Your task to perform on an android device: set the stopwatch Image 0: 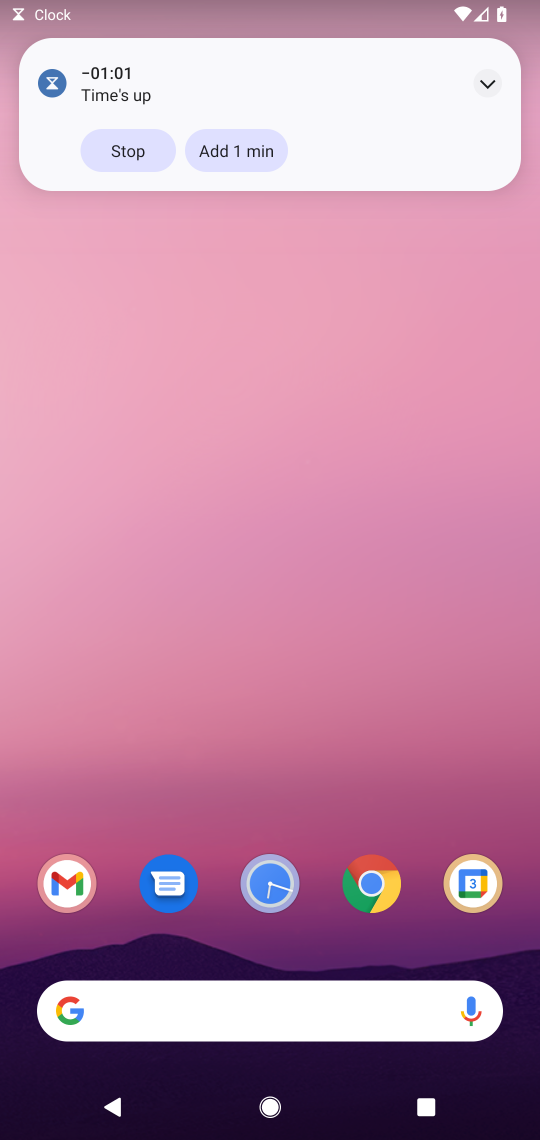
Step 0: drag from (292, 988) to (208, 255)
Your task to perform on an android device: set the stopwatch Image 1: 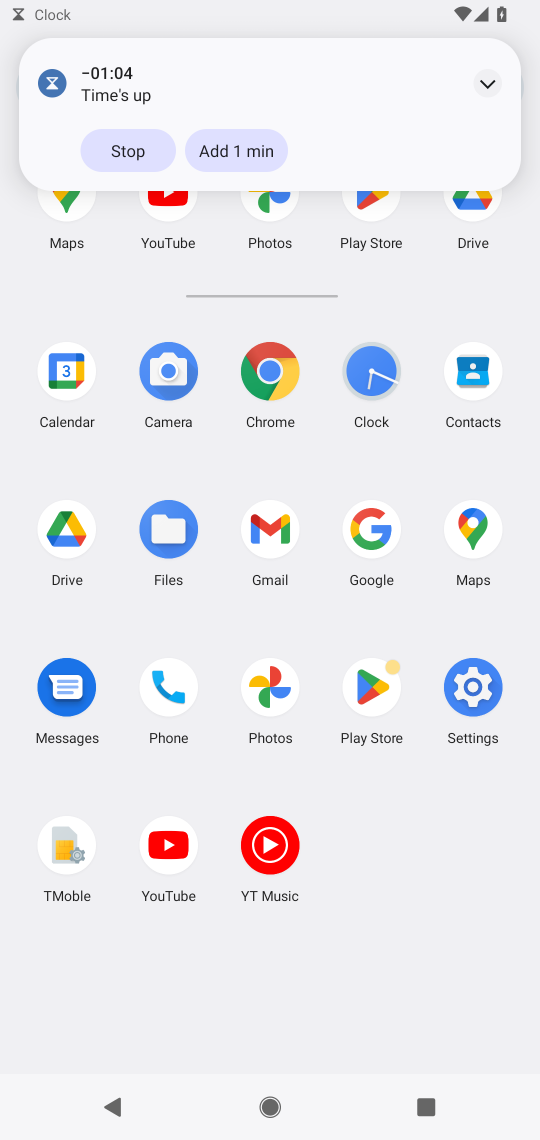
Step 1: click (386, 371)
Your task to perform on an android device: set the stopwatch Image 2: 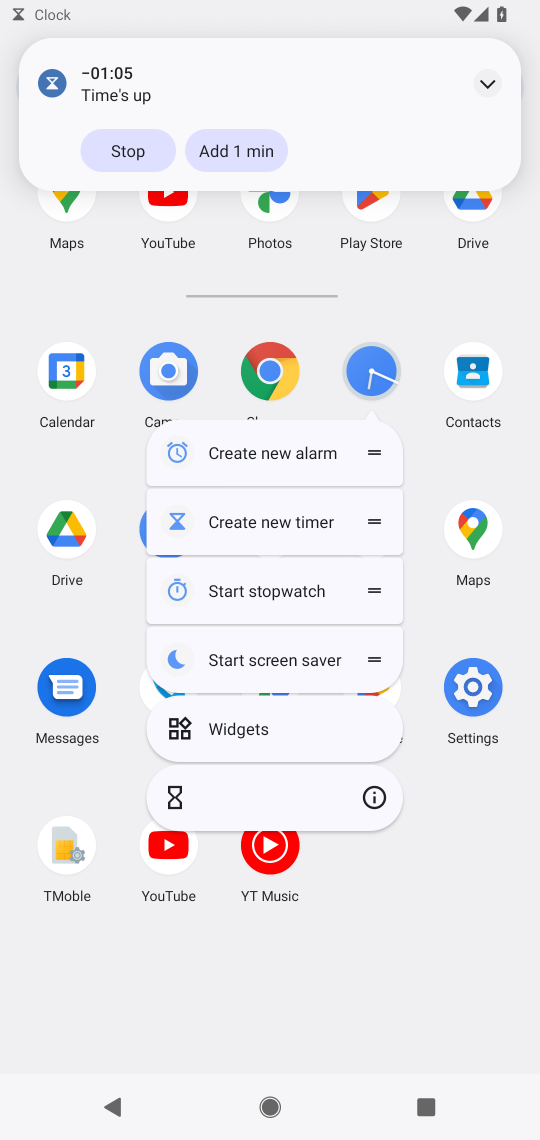
Step 2: click (382, 368)
Your task to perform on an android device: set the stopwatch Image 3: 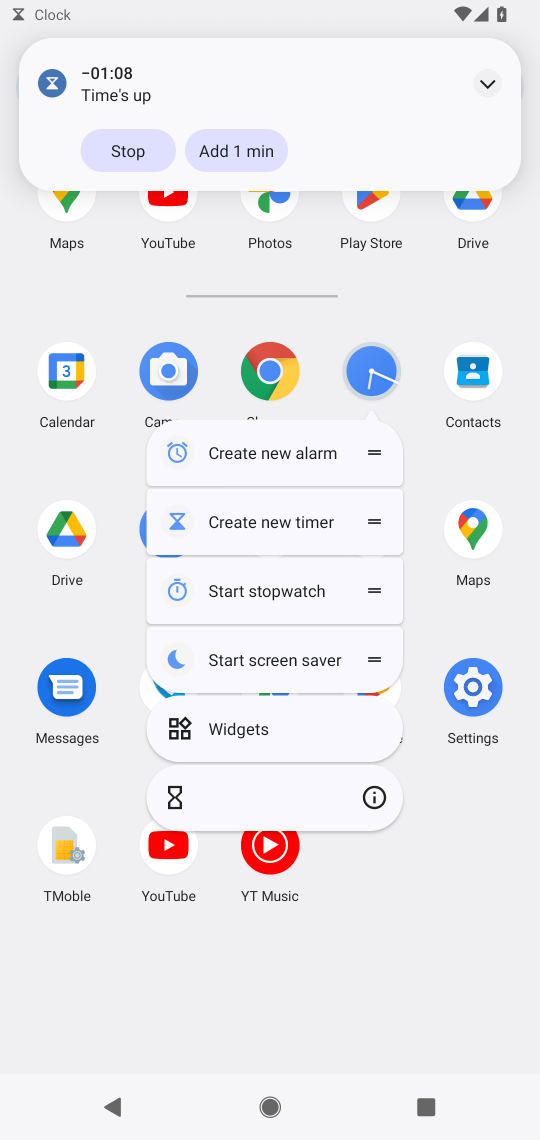
Step 3: click (372, 387)
Your task to perform on an android device: set the stopwatch Image 4: 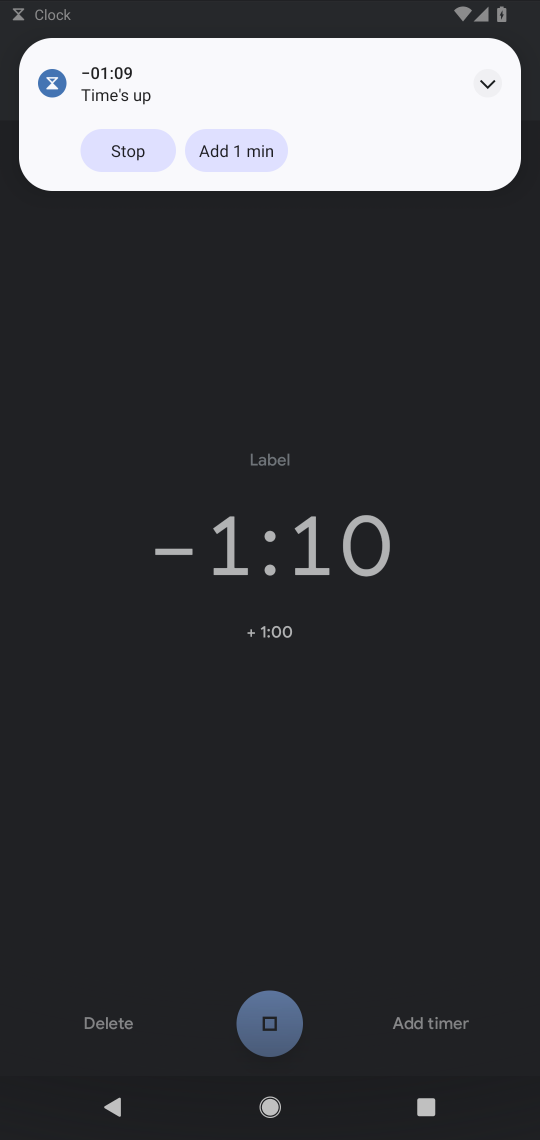
Step 4: click (365, 376)
Your task to perform on an android device: set the stopwatch Image 5: 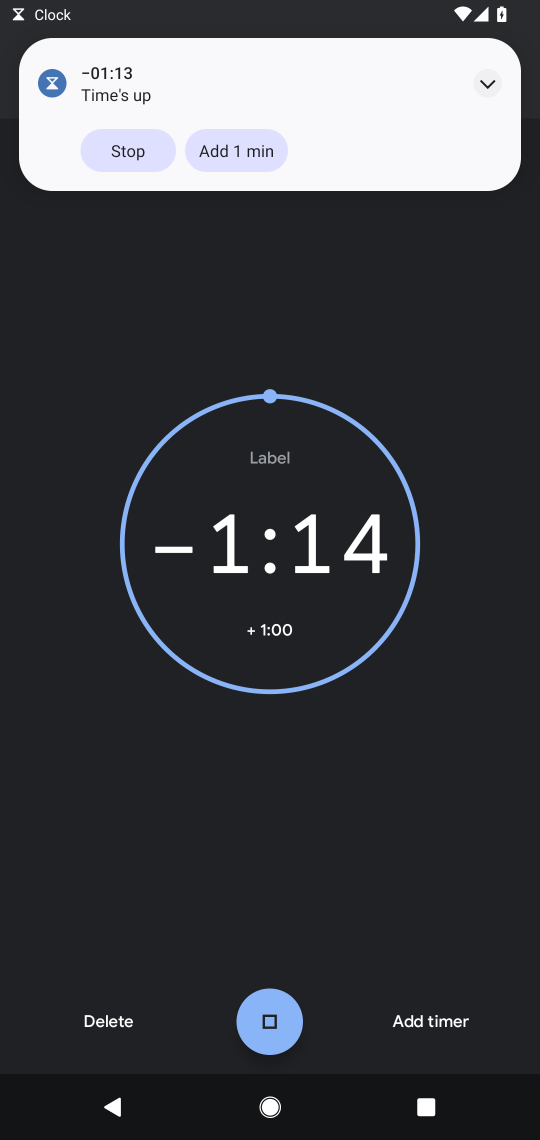
Step 5: click (126, 159)
Your task to perform on an android device: set the stopwatch Image 6: 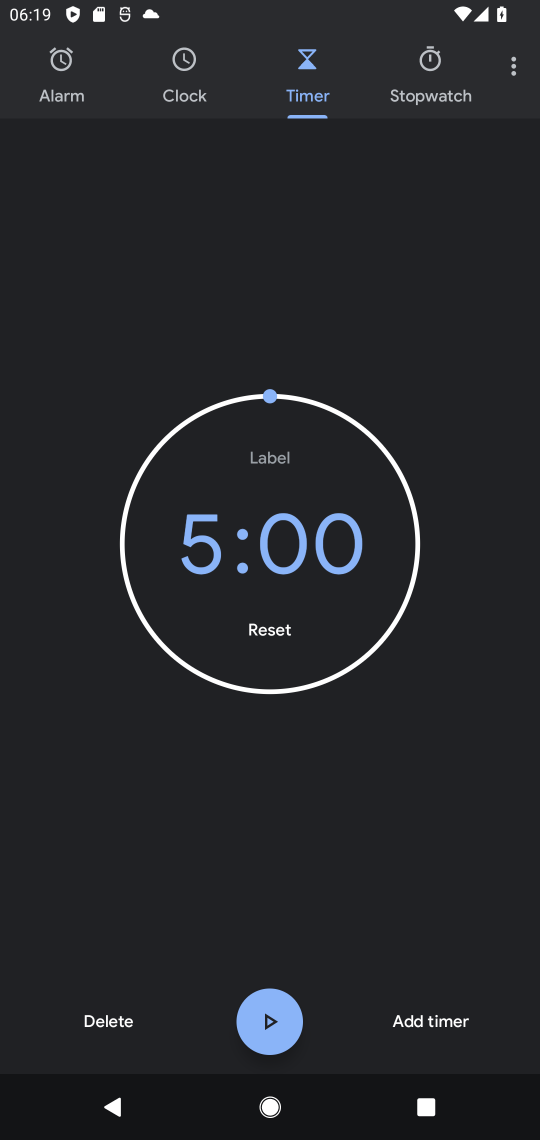
Step 6: click (420, 98)
Your task to perform on an android device: set the stopwatch Image 7: 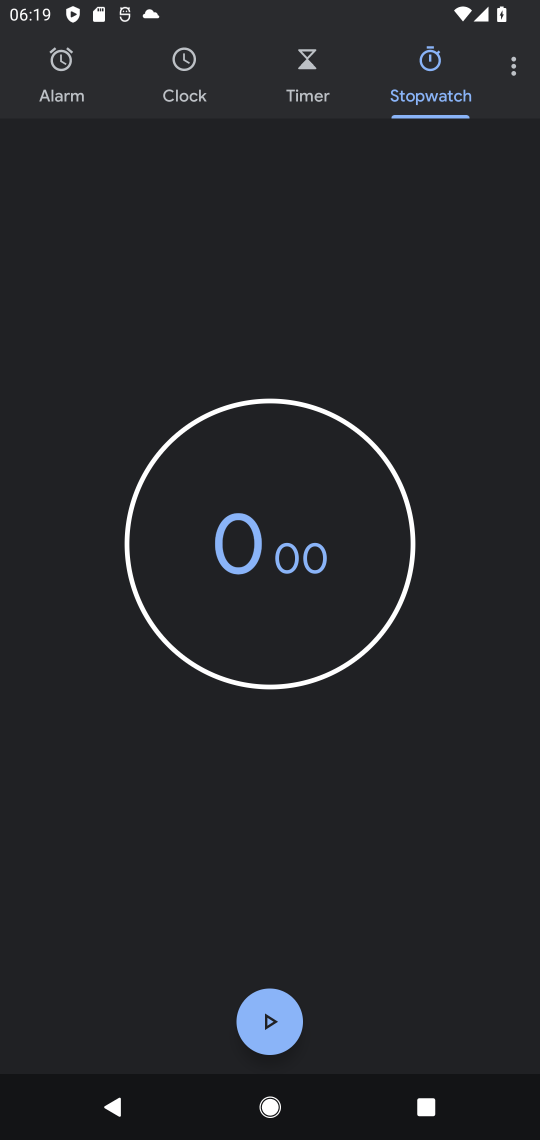
Step 7: click (271, 1034)
Your task to perform on an android device: set the stopwatch Image 8: 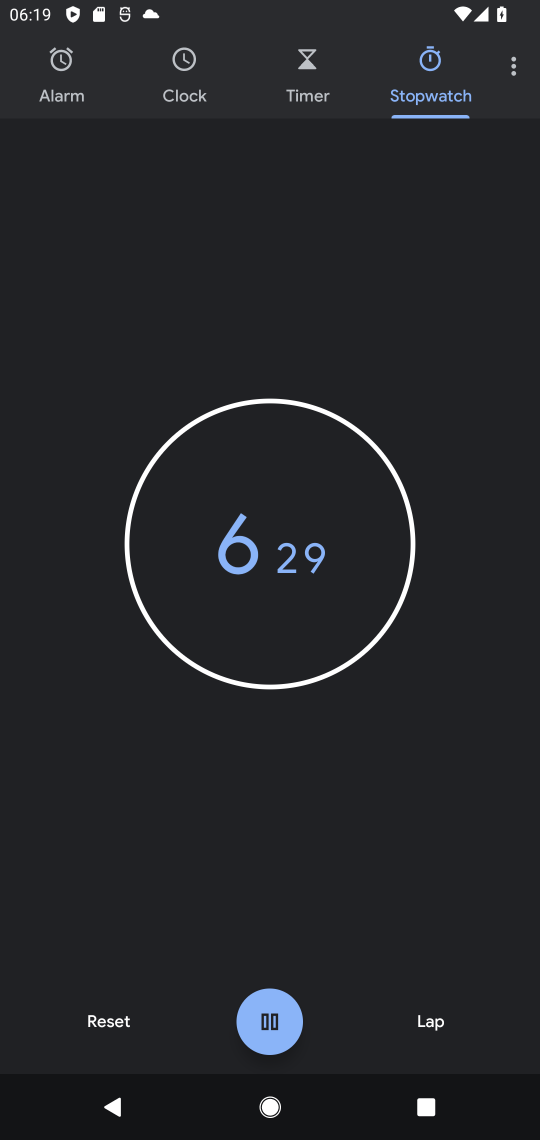
Step 8: click (255, 1033)
Your task to perform on an android device: set the stopwatch Image 9: 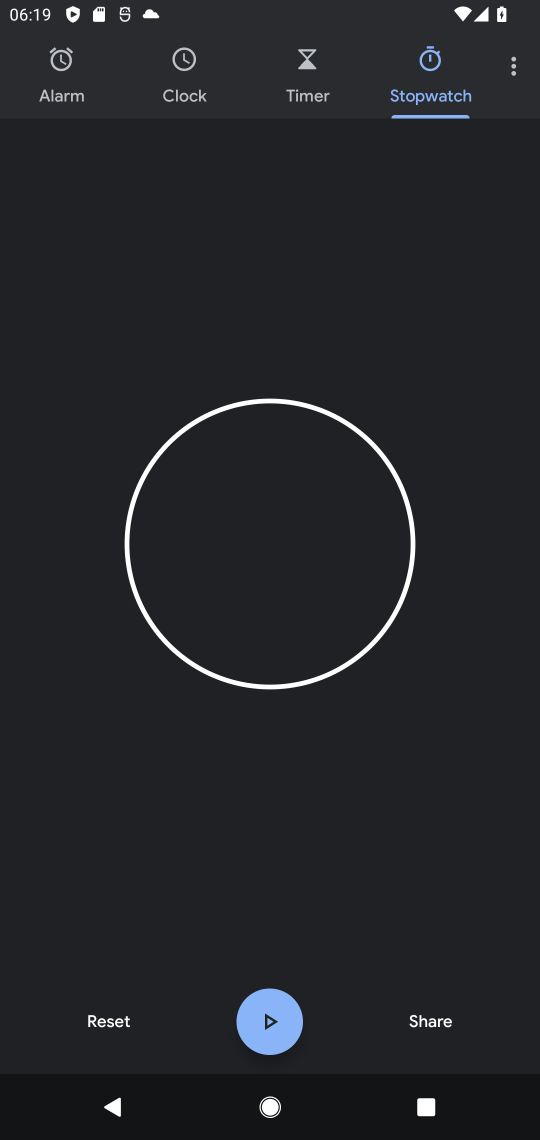
Step 9: task complete